Your task to perform on an android device: remove spam from my inbox in the gmail app Image 0: 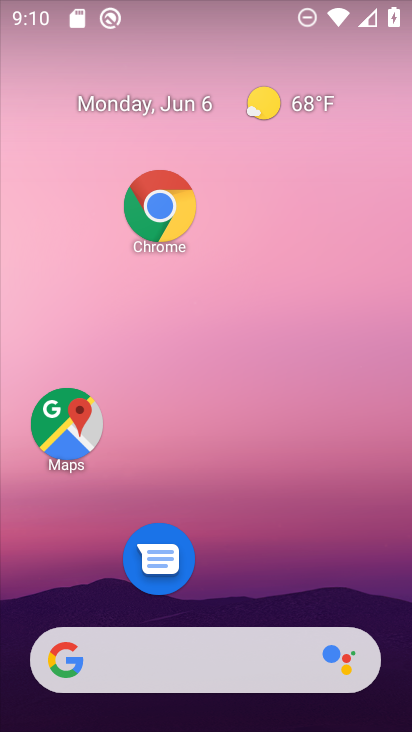
Step 0: drag from (265, 671) to (230, 164)
Your task to perform on an android device: remove spam from my inbox in the gmail app Image 1: 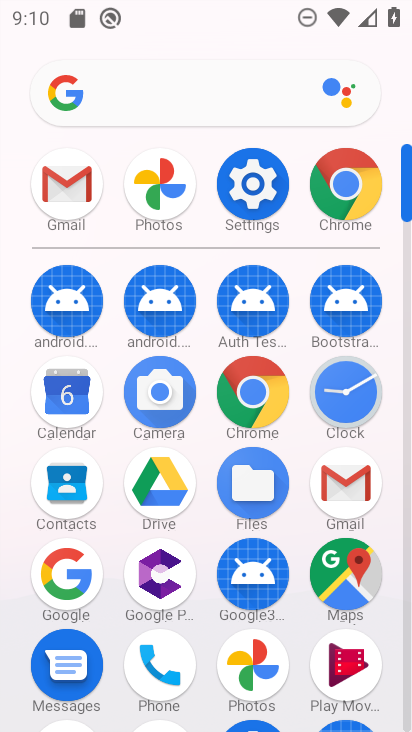
Step 1: click (335, 492)
Your task to perform on an android device: remove spam from my inbox in the gmail app Image 2: 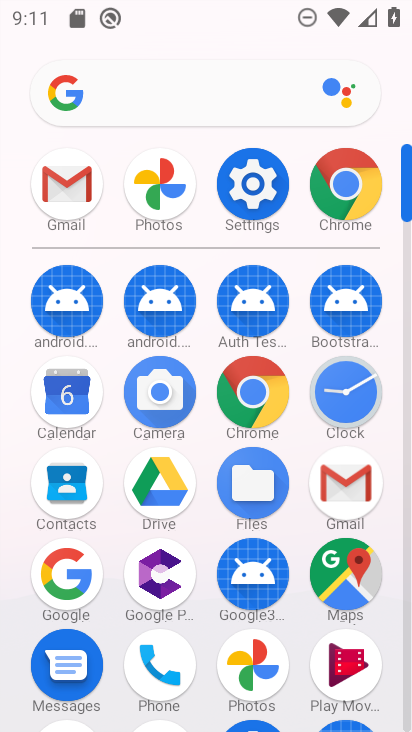
Step 2: click (336, 492)
Your task to perform on an android device: remove spam from my inbox in the gmail app Image 3: 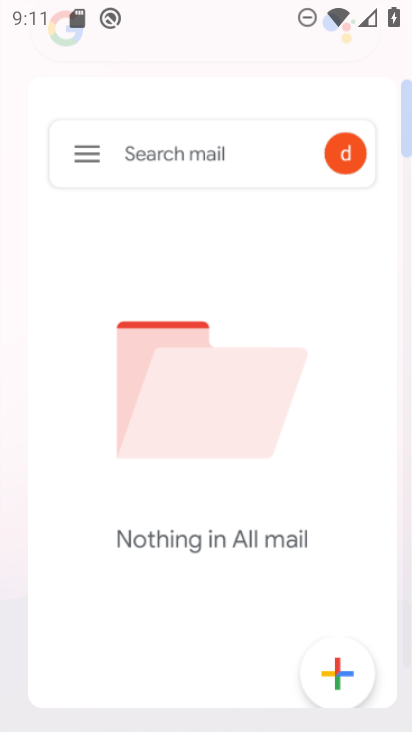
Step 3: click (343, 494)
Your task to perform on an android device: remove spam from my inbox in the gmail app Image 4: 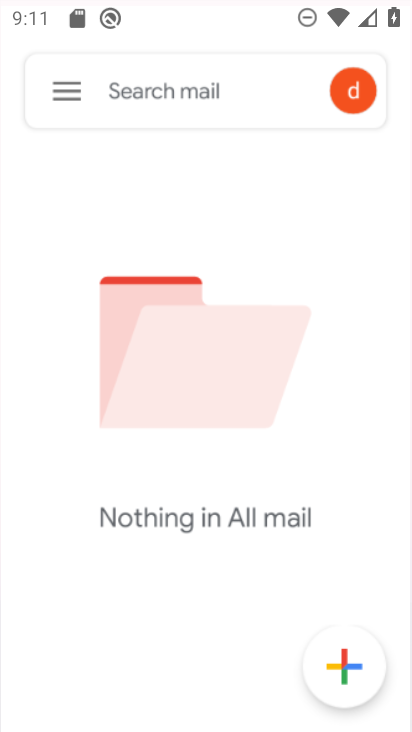
Step 4: click (343, 494)
Your task to perform on an android device: remove spam from my inbox in the gmail app Image 5: 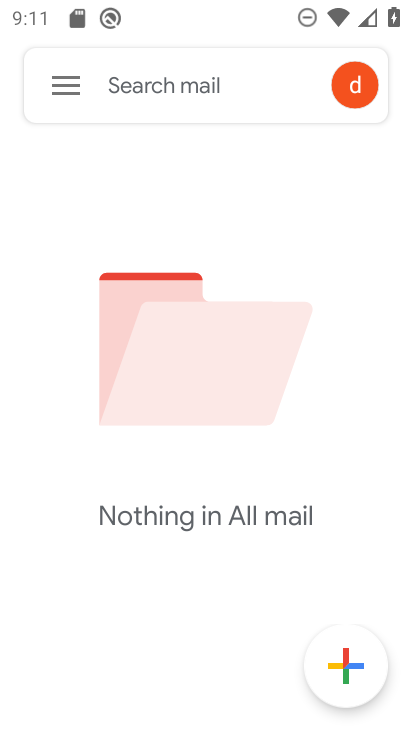
Step 5: click (343, 496)
Your task to perform on an android device: remove spam from my inbox in the gmail app Image 6: 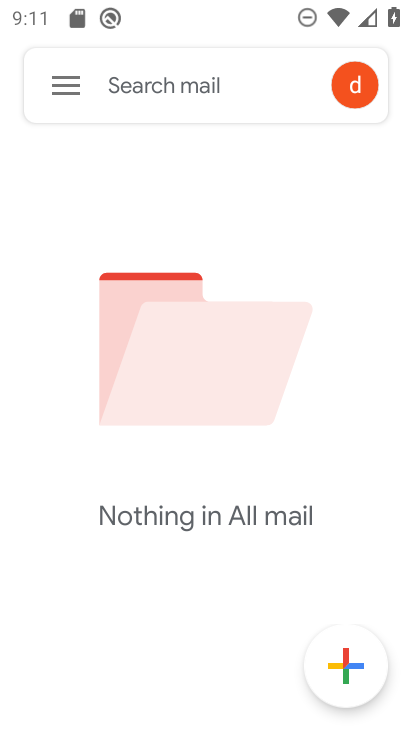
Step 6: click (65, 82)
Your task to perform on an android device: remove spam from my inbox in the gmail app Image 7: 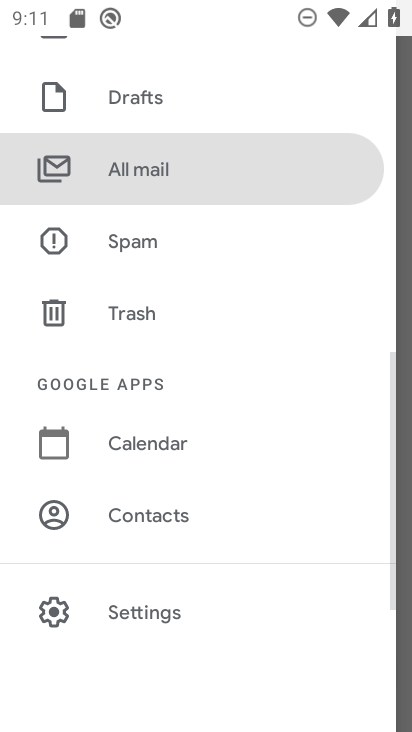
Step 7: click (131, 245)
Your task to perform on an android device: remove spam from my inbox in the gmail app Image 8: 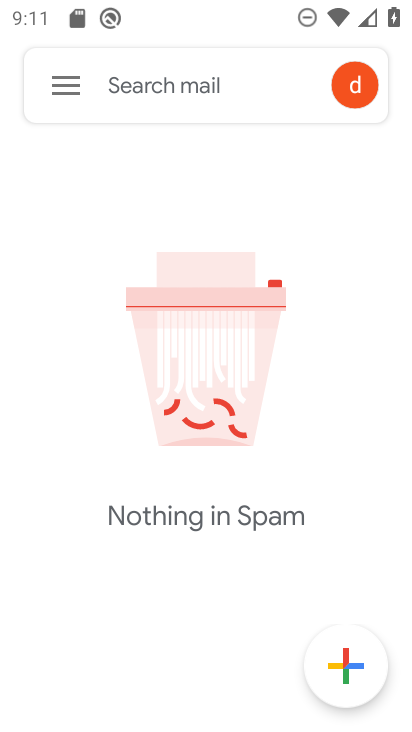
Step 8: task complete